Your task to perform on an android device: Go to ESPN.com Image 0: 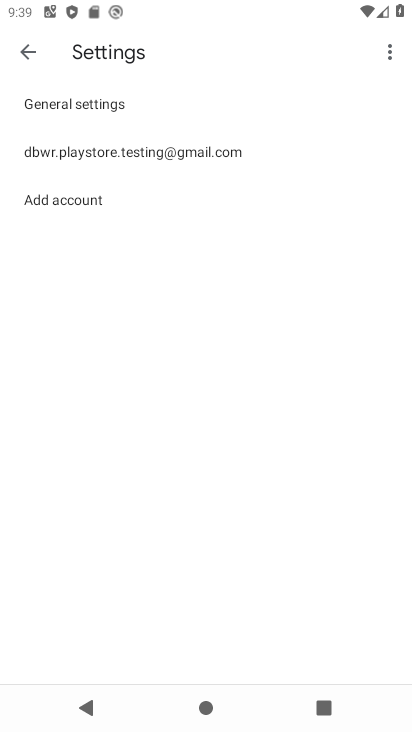
Step 0: press home button
Your task to perform on an android device: Go to ESPN.com Image 1: 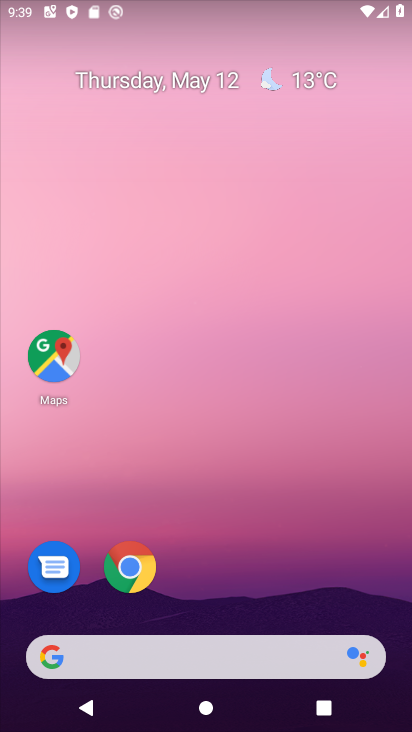
Step 1: click (129, 668)
Your task to perform on an android device: Go to ESPN.com Image 2: 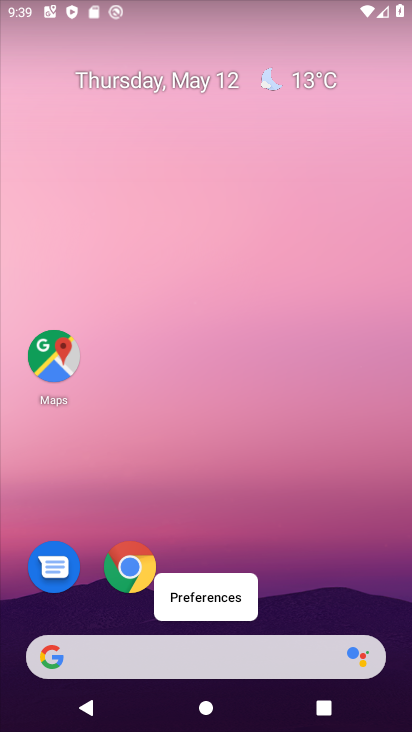
Step 2: click (188, 650)
Your task to perform on an android device: Go to ESPN.com Image 3: 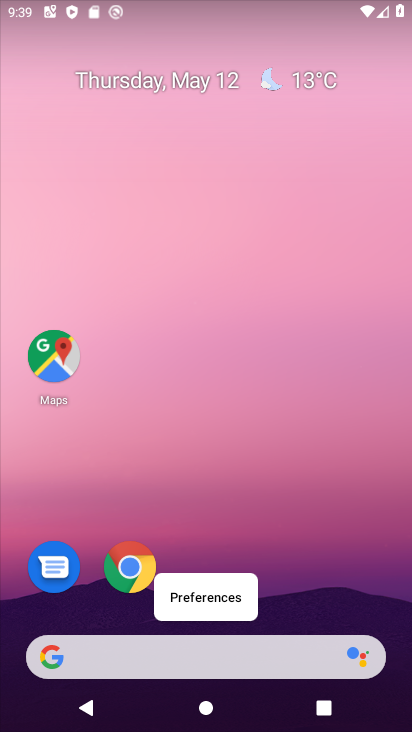
Step 3: click (298, 654)
Your task to perform on an android device: Go to ESPN.com Image 4: 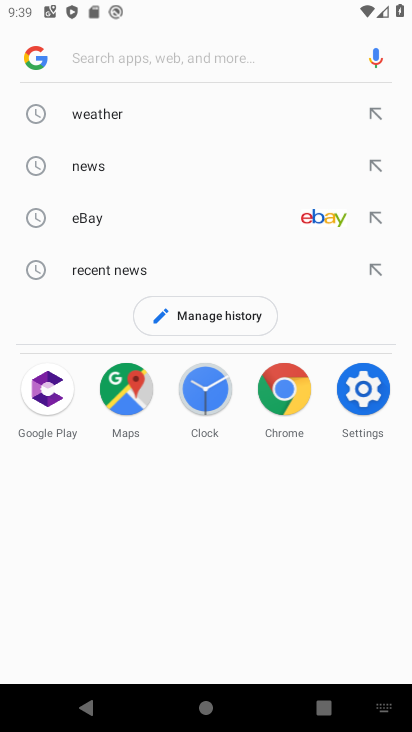
Step 4: type "ESPN.com"
Your task to perform on an android device: Go to ESPN.com Image 5: 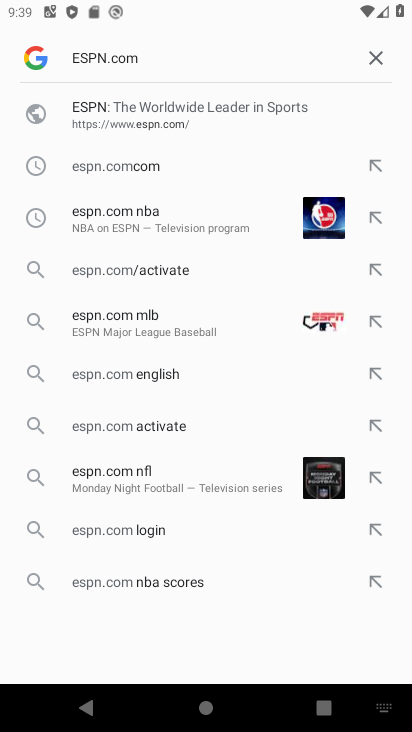
Step 5: click (110, 126)
Your task to perform on an android device: Go to ESPN.com Image 6: 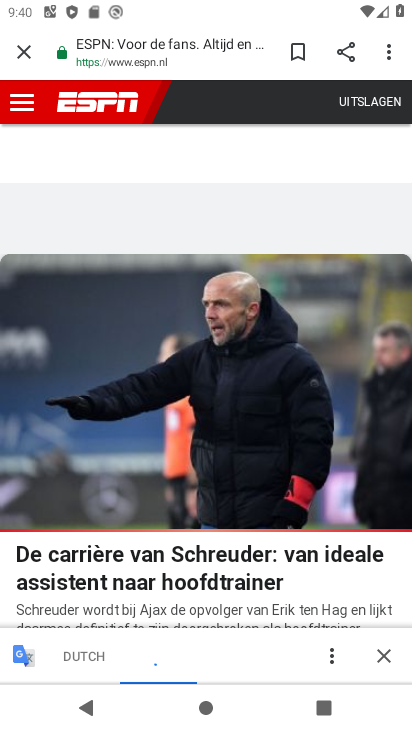
Step 6: task complete